Your task to perform on an android device: toggle pop-ups in chrome Image 0: 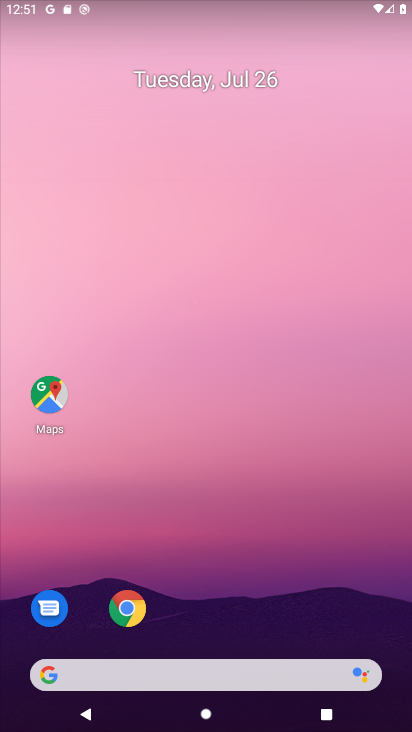
Step 0: click (131, 598)
Your task to perform on an android device: toggle pop-ups in chrome Image 1: 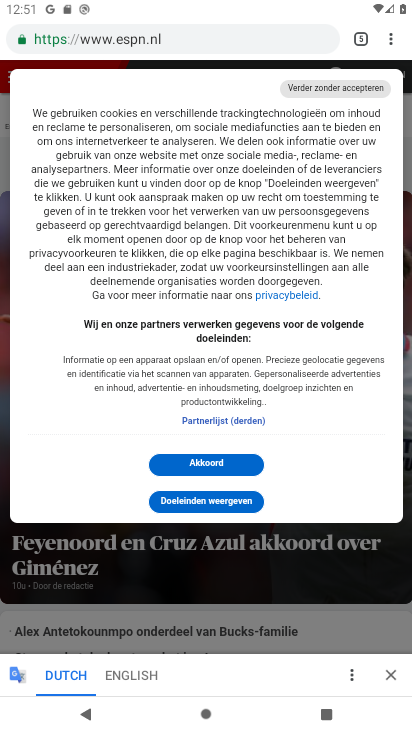
Step 1: click (396, 43)
Your task to perform on an android device: toggle pop-ups in chrome Image 2: 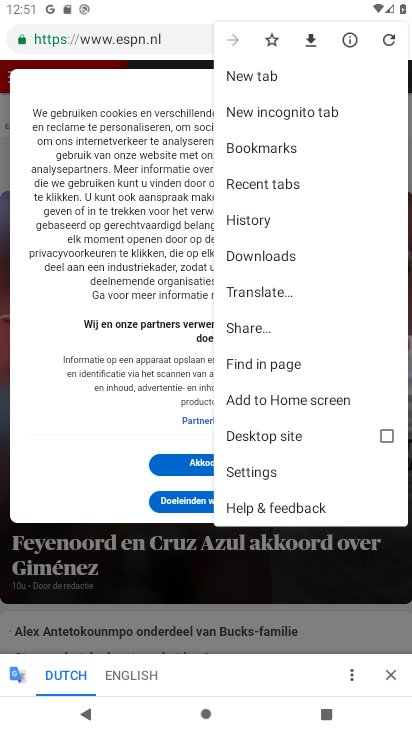
Step 2: click (278, 469)
Your task to perform on an android device: toggle pop-ups in chrome Image 3: 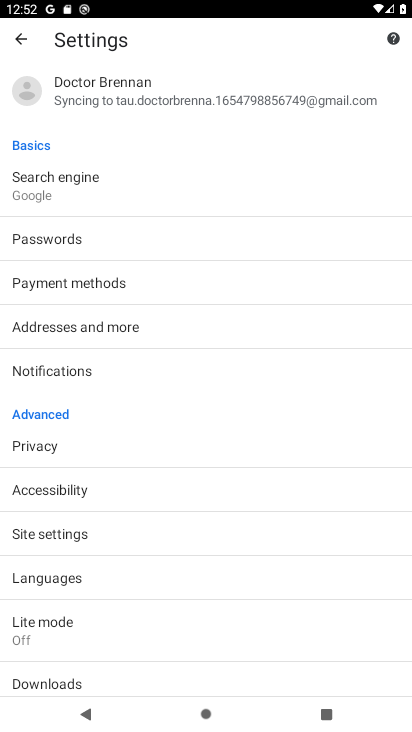
Step 3: click (101, 537)
Your task to perform on an android device: toggle pop-ups in chrome Image 4: 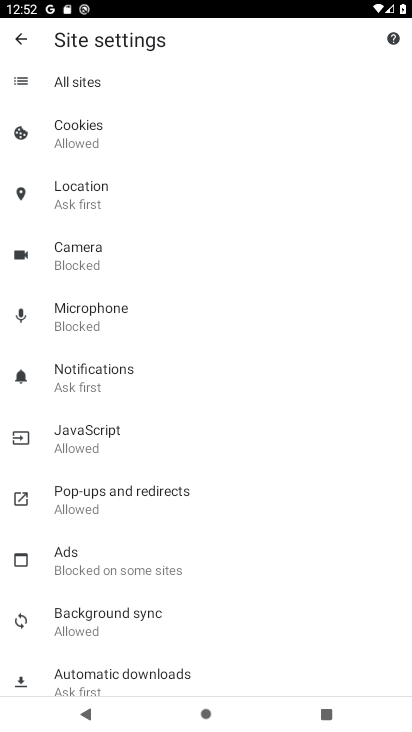
Step 4: click (127, 496)
Your task to perform on an android device: toggle pop-ups in chrome Image 5: 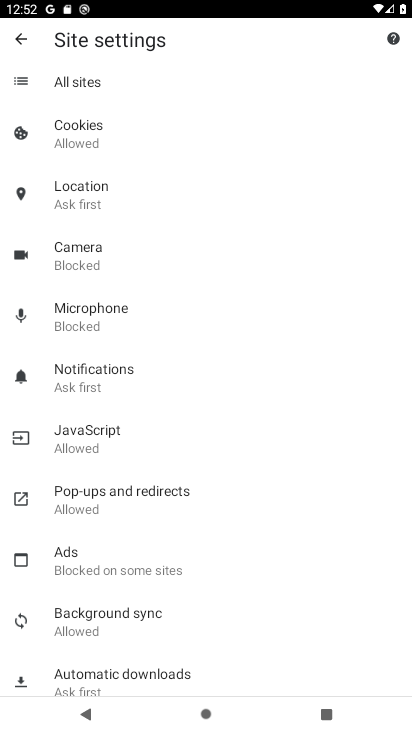
Step 5: click (127, 496)
Your task to perform on an android device: toggle pop-ups in chrome Image 6: 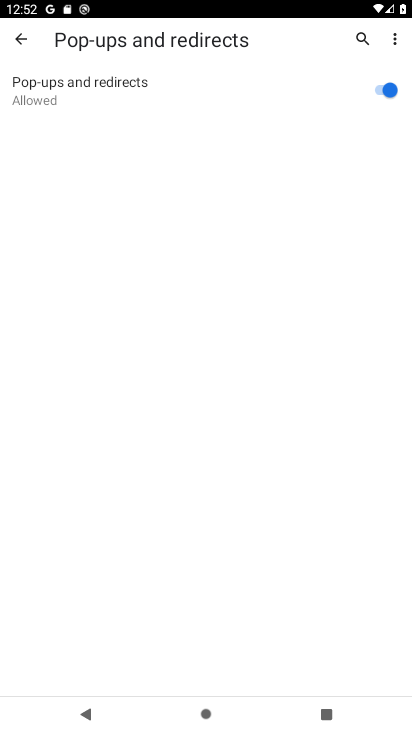
Step 6: click (127, 496)
Your task to perform on an android device: toggle pop-ups in chrome Image 7: 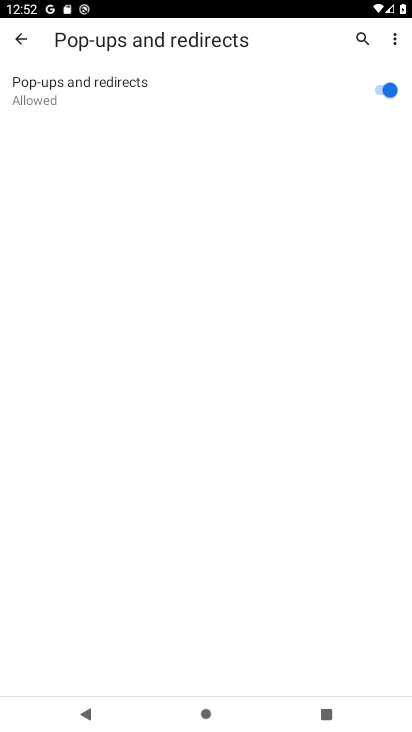
Step 7: click (391, 84)
Your task to perform on an android device: toggle pop-ups in chrome Image 8: 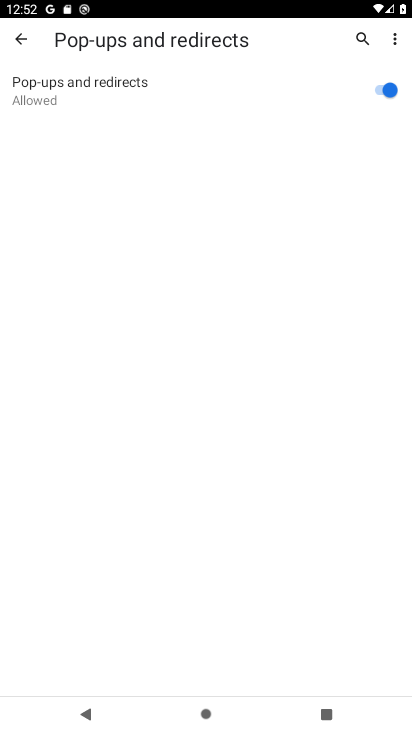
Step 8: click (391, 84)
Your task to perform on an android device: toggle pop-ups in chrome Image 9: 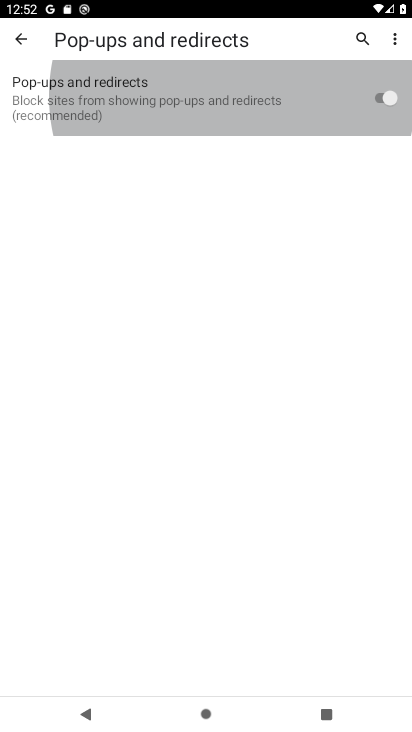
Step 9: click (391, 84)
Your task to perform on an android device: toggle pop-ups in chrome Image 10: 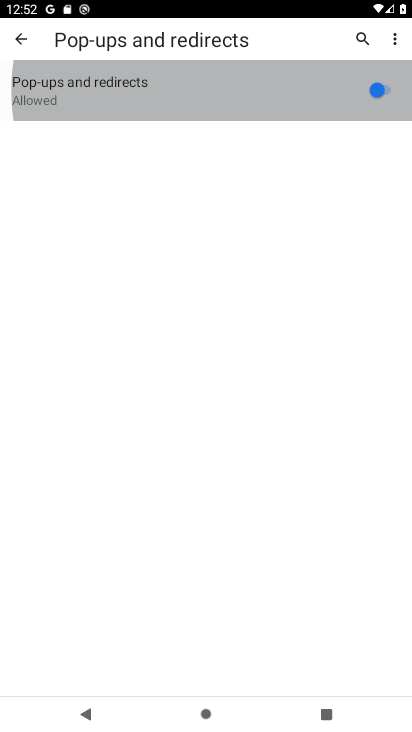
Step 10: click (391, 84)
Your task to perform on an android device: toggle pop-ups in chrome Image 11: 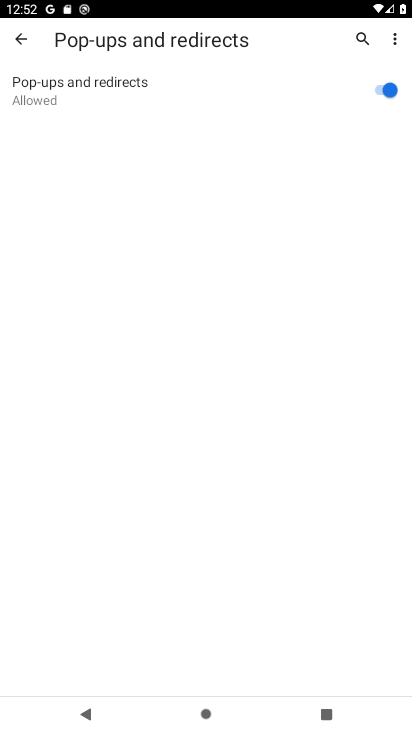
Step 11: click (391, 84)
Your task to perform on an android device: toggle pop-ups in chrome Image 12: 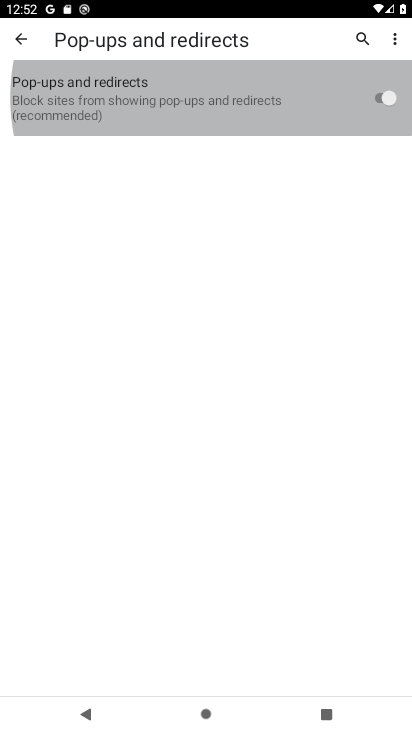
Step 12: click (391, 84)
Your task to perform on an android device: toggle pop-ups in chrome Image 13: 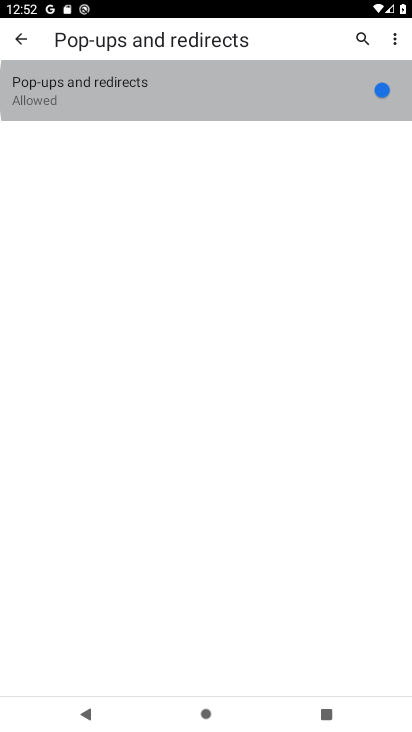
Step 13: click (391, 84)
Your task to perform on an android device: toggle pop-ups in chrome Image 14: 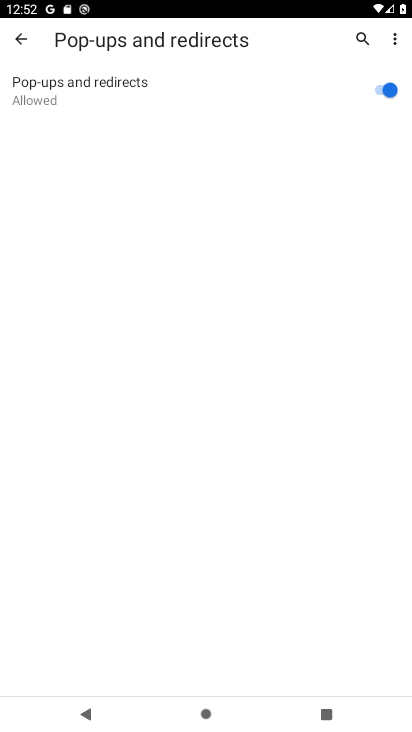
Step 14: task complete